Your task to perform on an android device: set the timer Image 0: 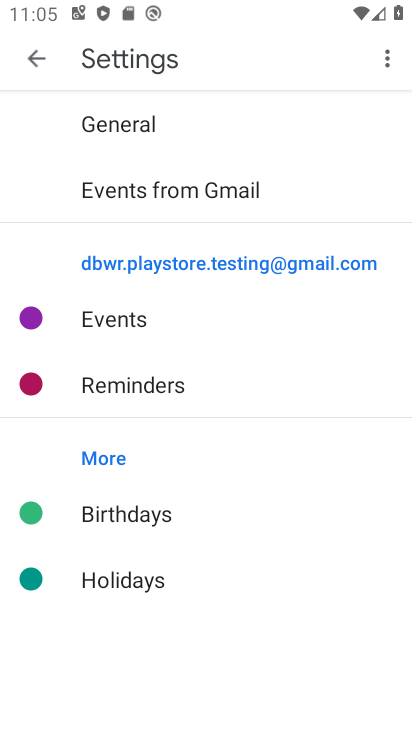
Step 0: press home button
Your task to perform on an android device: set the timer Image 1: 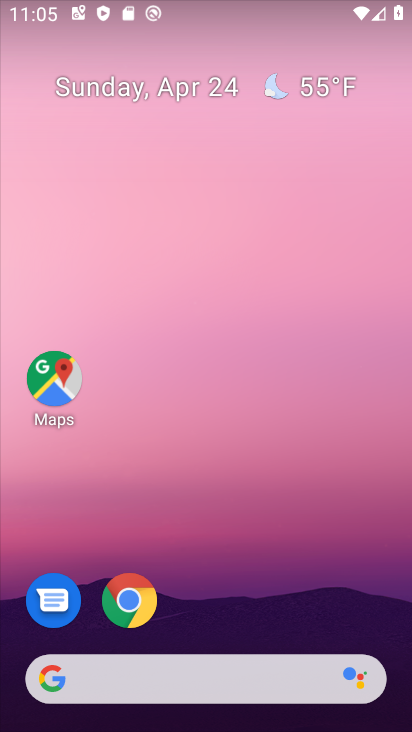
Step 1: drag from (251, 640) to (248, 55)
Your task to perform on an android device: set the timer Image 2: 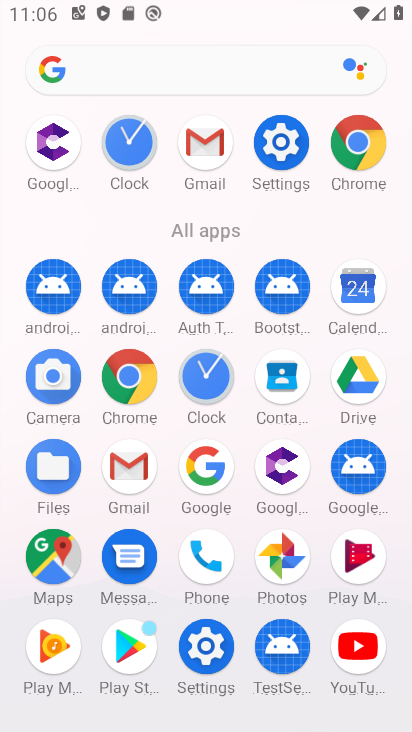
Step 2: click (201, 382)
Your task to perform on an android device: set the timer Image 3: 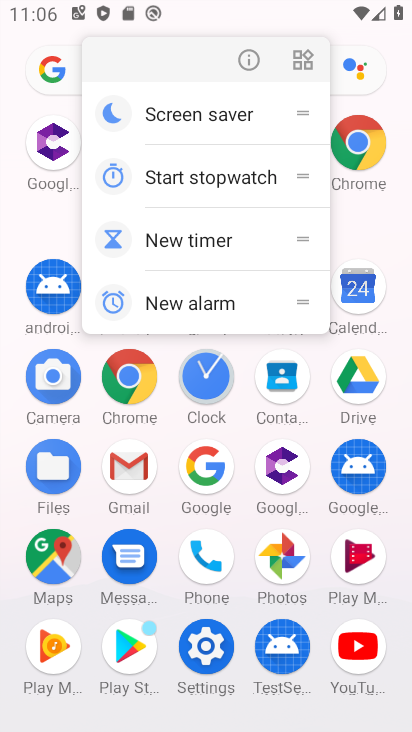
Step 3: click (211, 393)
Your task to perform on an android device: set the timer Image 4: 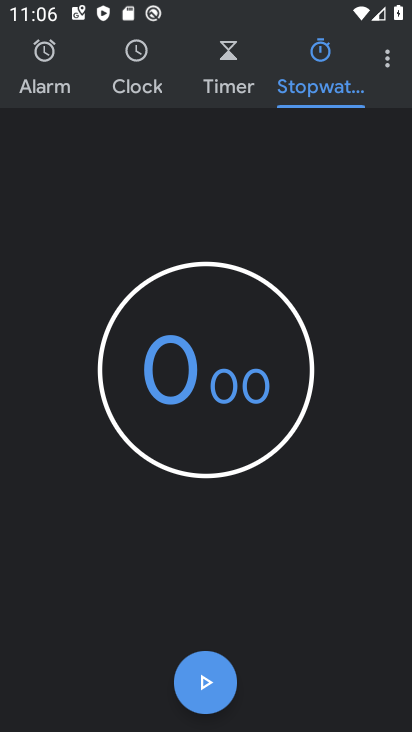
Step 4: click (237, 66)
Your task to perform on an android device: set the timer Image 5: 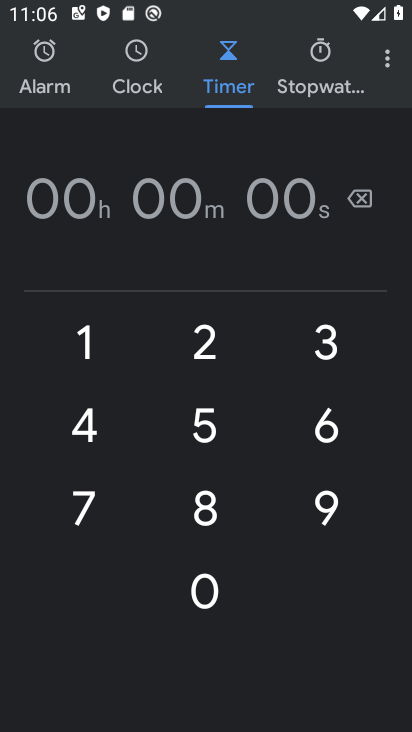
Step 5: click (227, 515)
Your task to perform on an android device: set the timer Image 6: 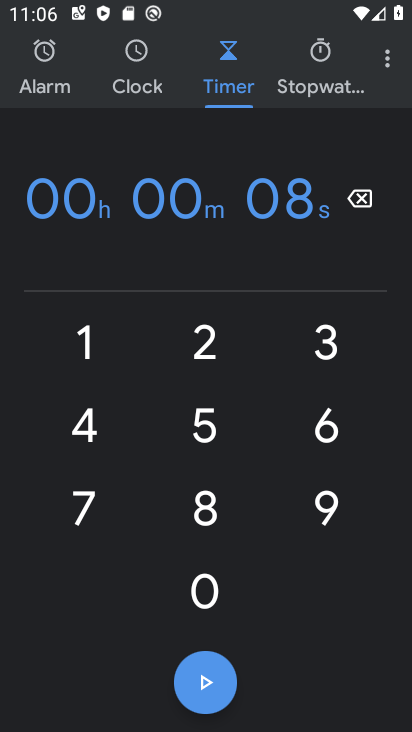
Step 6: click (231, 670)
Your task to perform on an android device: set the timer Image 7: 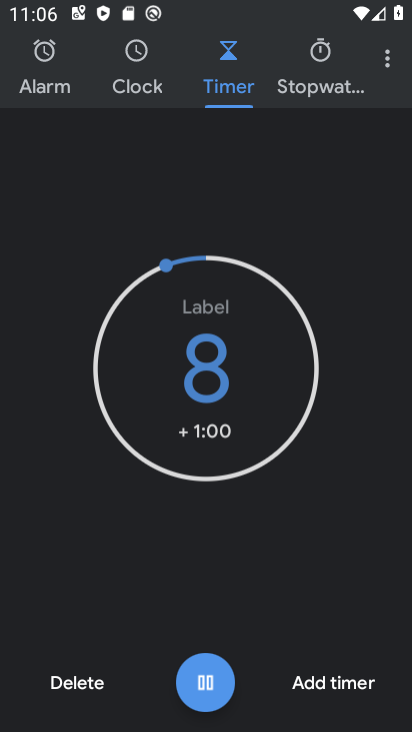
Step 7: task complete